Your task to perform on an android device: toggle sleep mode Image 0: 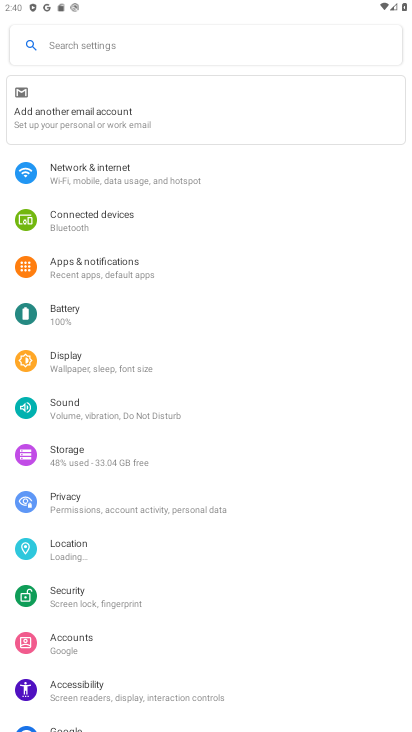
Step 0: drag from (168, 635) to (179, 338)
Your task to perform on an android device: toggle sleep mode Image 1: 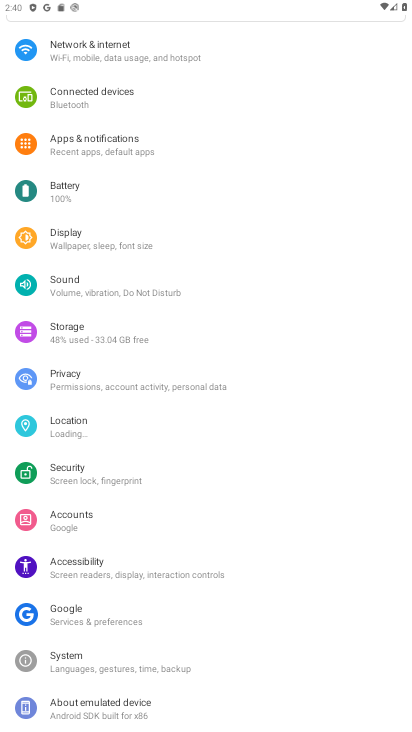
Step 1: task complete